Your task to perform on an android device: change notification settings in the gmail app Image 0: 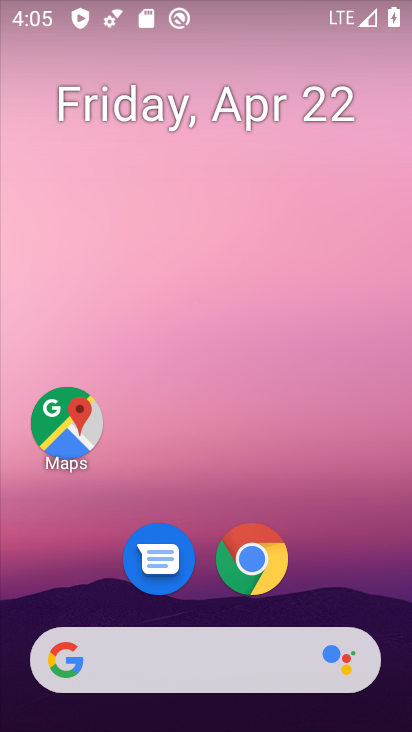
Step 0: drag from (332, 579) to (252, 85)
Your task to perform on an android device: change notification settings in the gmail app Image 1: 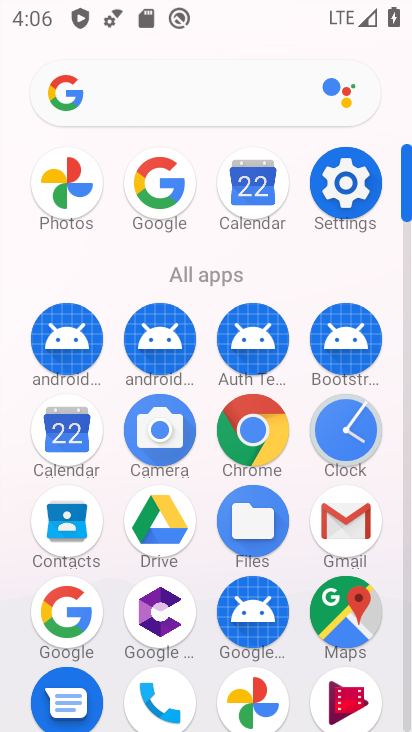
Step 1: click (351, 510)
Your task to perform on an android device: change notification settings in the gmail app Image 2: 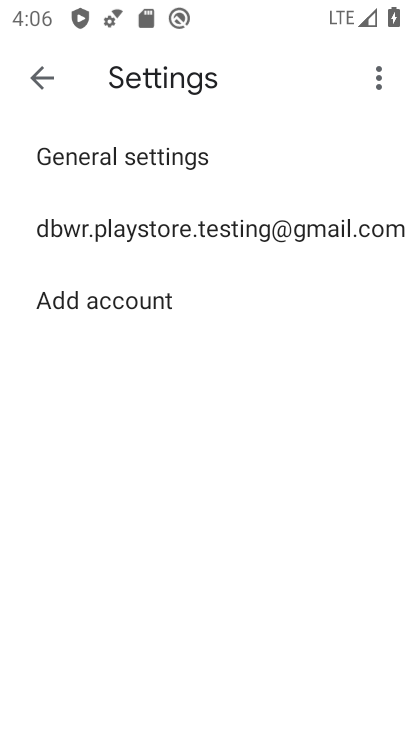
Step 2: click (175, 240)
Your task to perform on an android device: change notification settings in the gmail app Image 3: 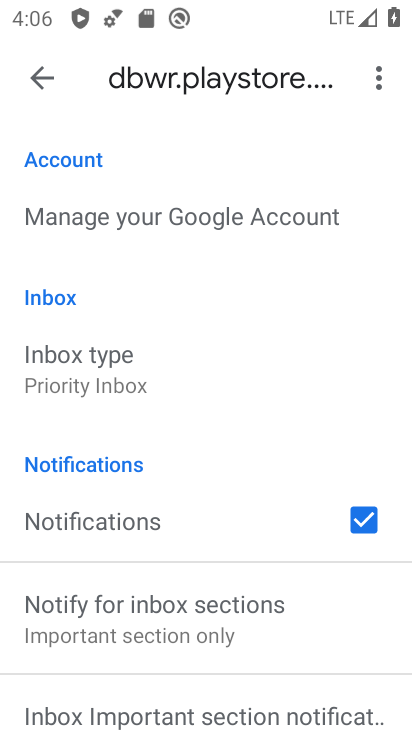
Step 3: click (173, 265)
Your task to perform on an android device: change notification settings in the gmail app Image 4: 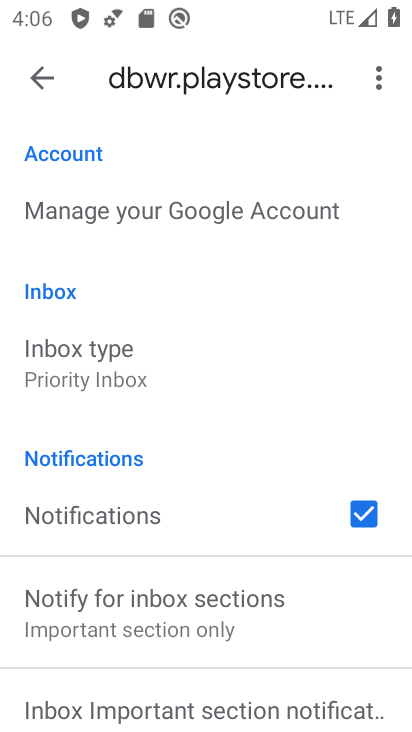
Step 4: drag from (202, 663) to (219, 231)
Your task to perform on an android device: change notification settings in the gmail app Image 5: 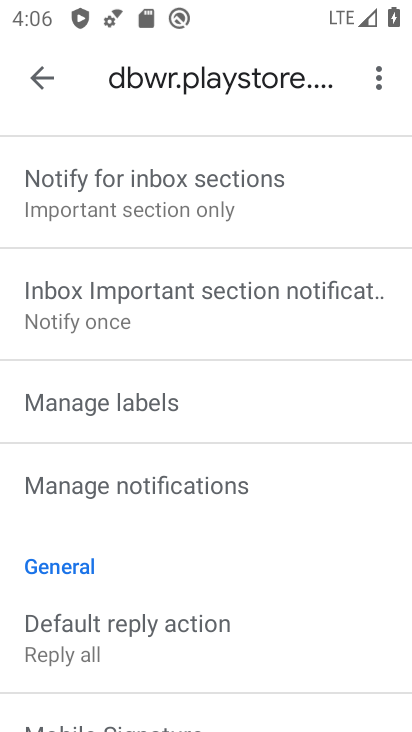
Step 5: click (164, 469)
Your task to perform on an android device: change notification settings in the gmail app Image 6: 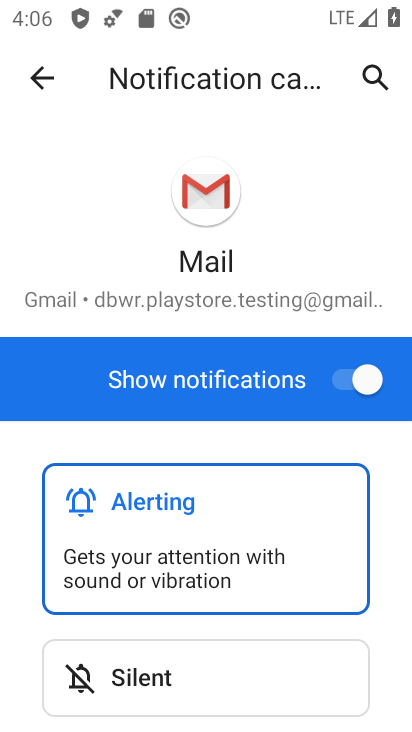
Step 6: click (357, 376)
Your task to perform on an android device: change notification settings in the gmail app Image 7: 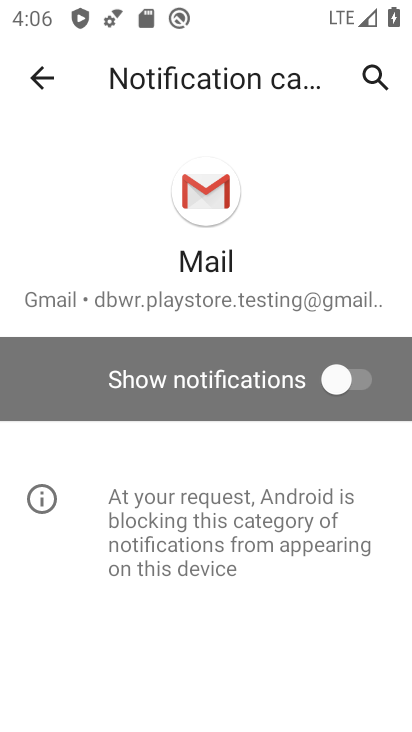
Step 7: task complete